Your task to perform on an android device: change alarm snooze length Image 0: 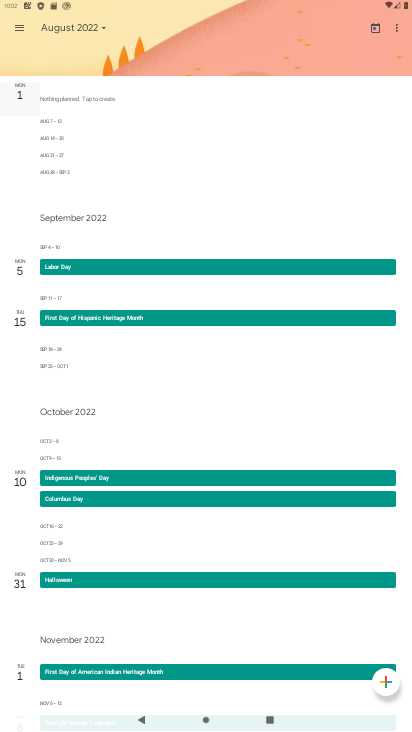
Step 0: press home button
Your task to perform on an android device: change alarm snooze length Image 1: 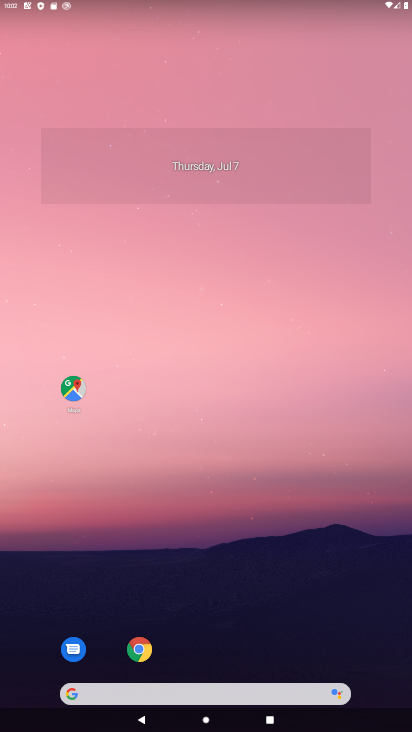
Step 1: click (230, 17)
Your task to perform on an android device: change alarm snooze length Image 2: 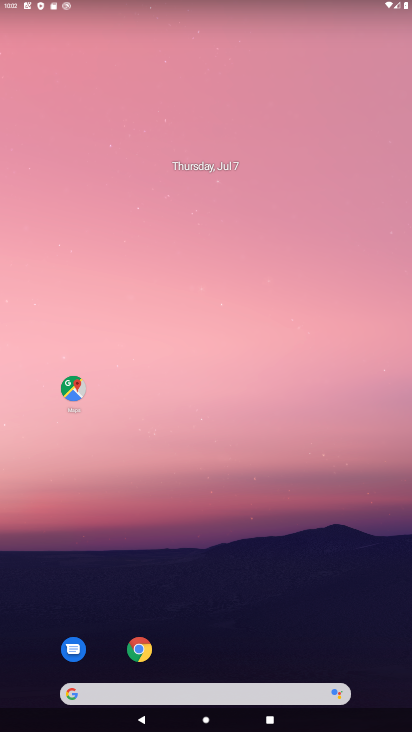
Step 2: drag from (219, 526) to (172, 128)
Your task to perform on an android device: change alarm snooze length Image 3: 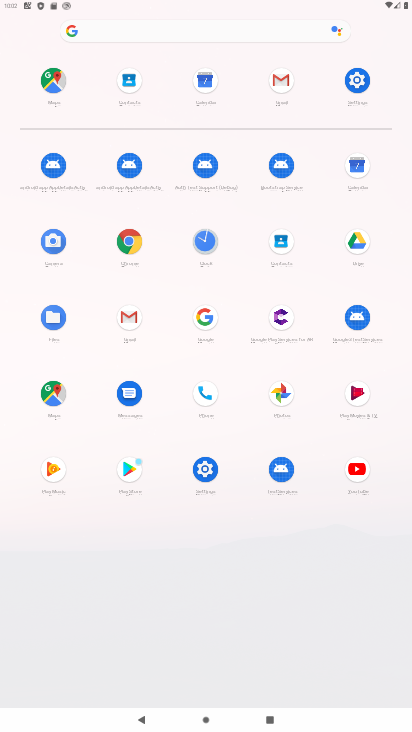
Step 3: click (203, 246)
Your task to perform on an android device: change alarm snooze length Image 4: 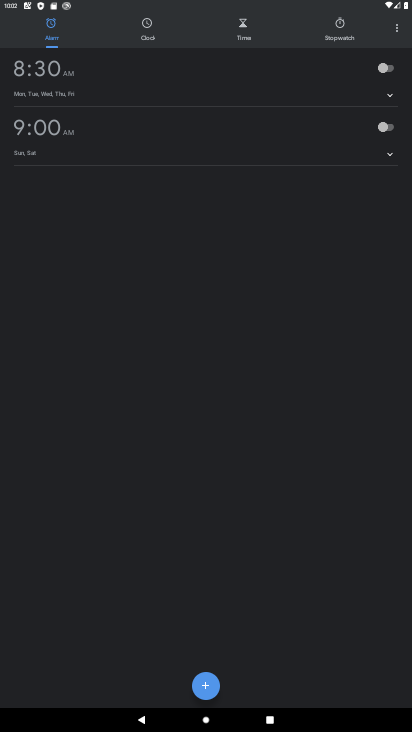
Step 4: click (397, 27)
Your task to perform on an android device: change alarm snooze length Image 5: 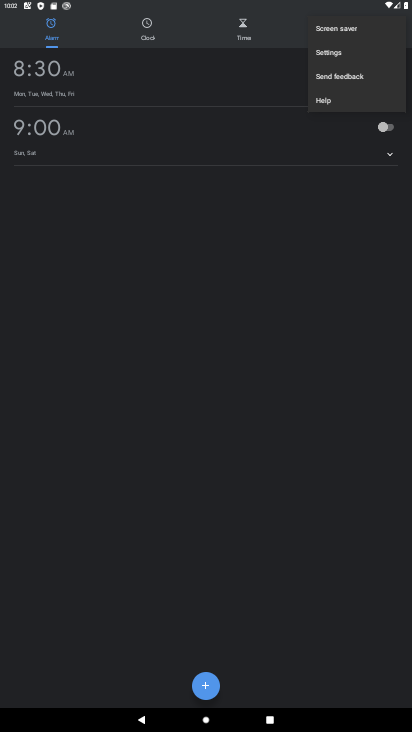
Step 5: click (346, 56)
Your task to perform on an android device: change alarm snooze length Image 6: 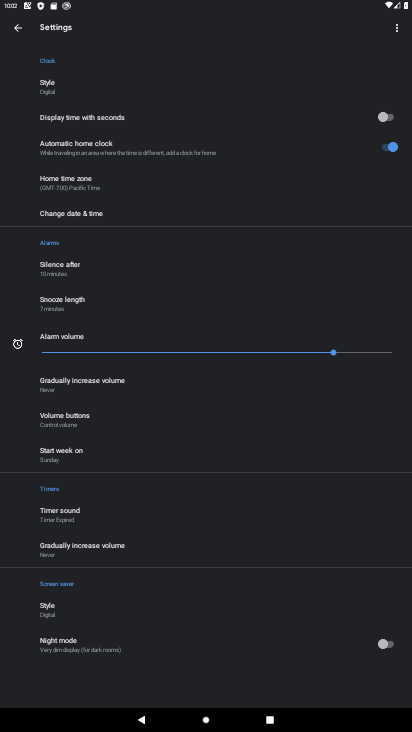
Step 6: click (73, 299)
Your task to perform on an android device: change alarm snooze length Image 7: 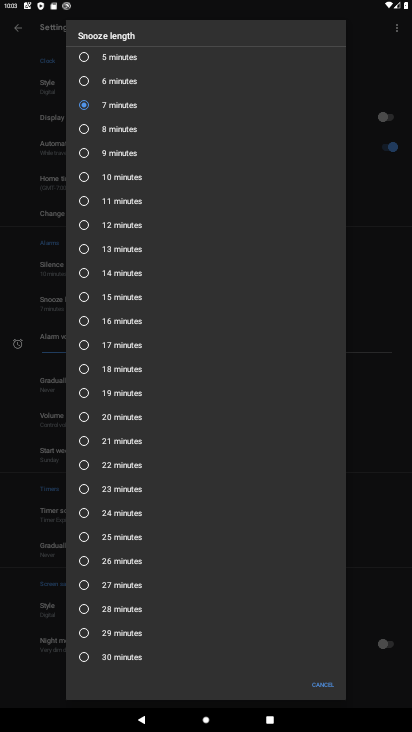
Step 7: click (89, 298)
Your task to perform on an android device: change alarm snooze length Image 8: 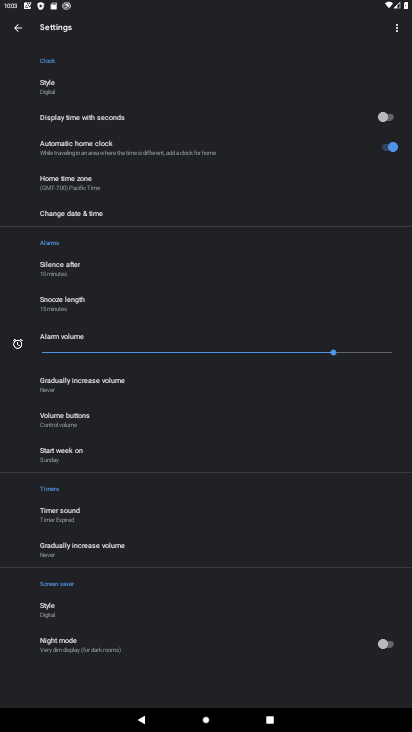
Step 8: task complete